Your task to perform on an android device: Open location settings Image 0: 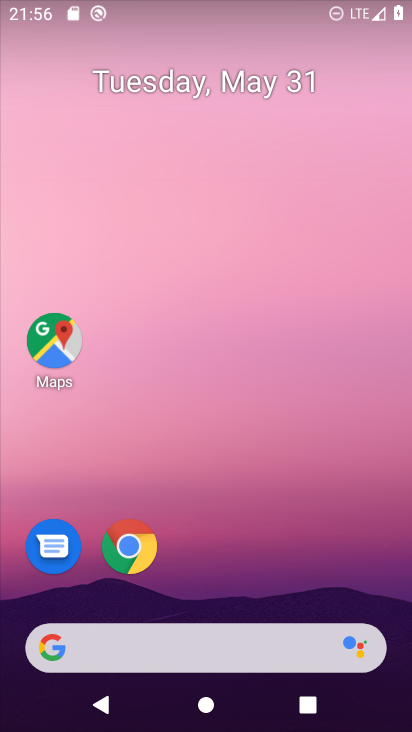
Step 0: drag from (394, 598) to (335, 236)
Your task to perform on an android device: Open location settings Image 1: 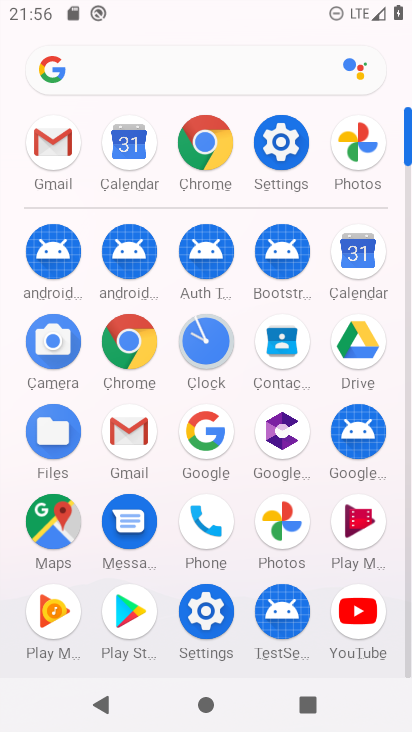
Step 1: click (203, 614)
Your task to perform on an android device: Open location settings Image 2: 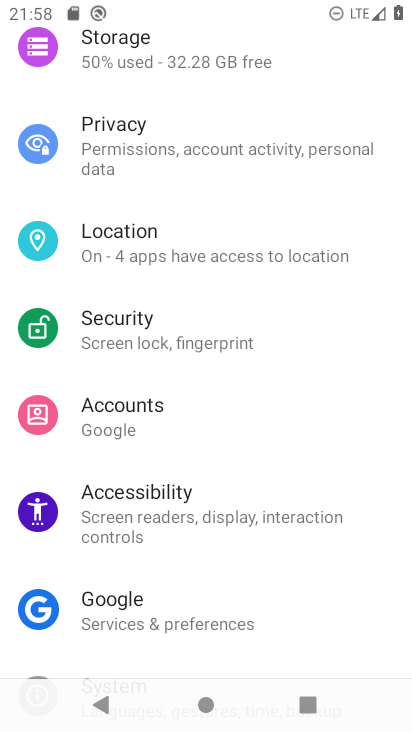
Step 2: click (130, 244)
Your task to perform on an android device: Open location settings Image 3: 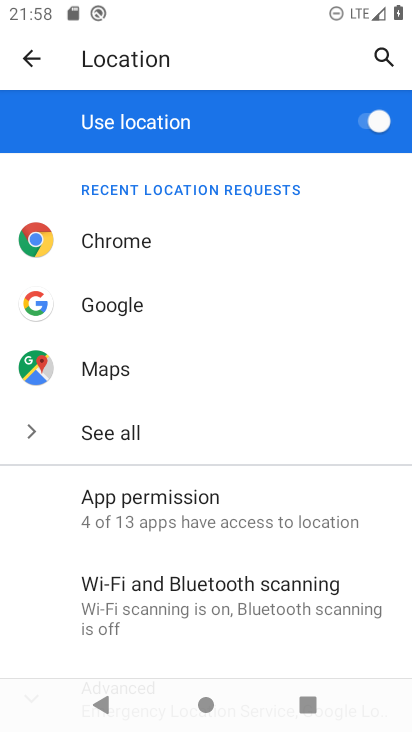
Step 3: task complete